Your task to perform on an android device: search for starred emails in the gmail app Image 0: 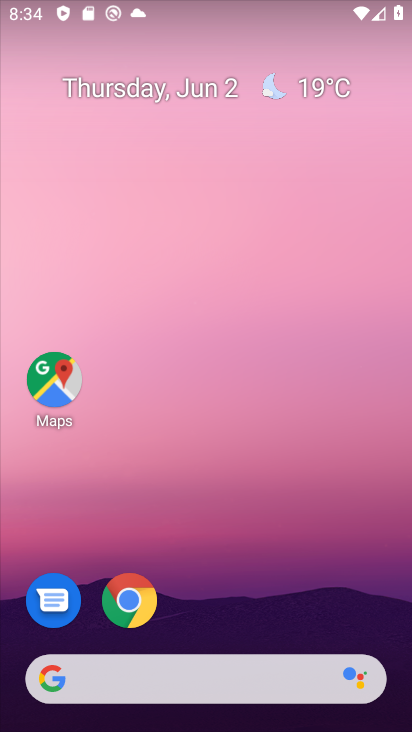
Step 0: drag from (180, 636) to (214, 192)
Your task to perform on an android device: search for starred emails in the gmail app Image 1: 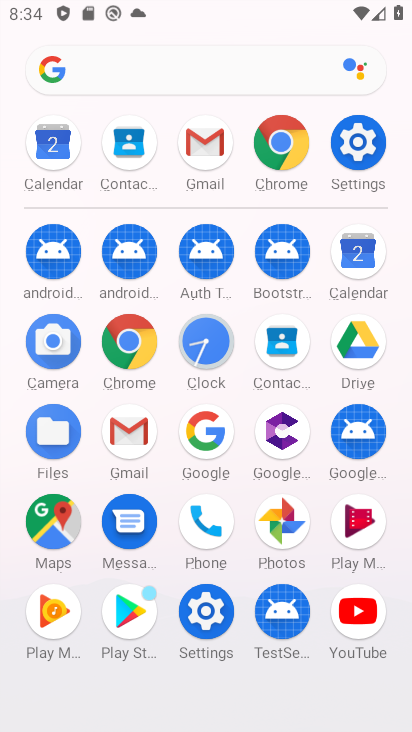
Step 1: click (214, 157)
Your task to perform on an android device: search for starred emails in the gmail app Image 2: 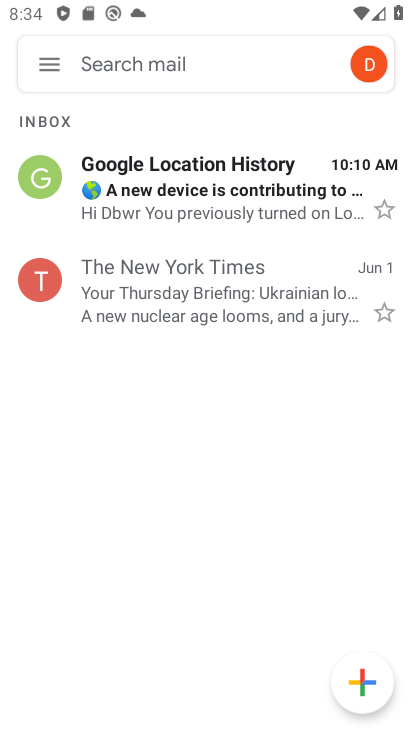
Step 2: click (68, 63)
Your task to perform on an android device: search for starred emails in the gmail app Image 3: 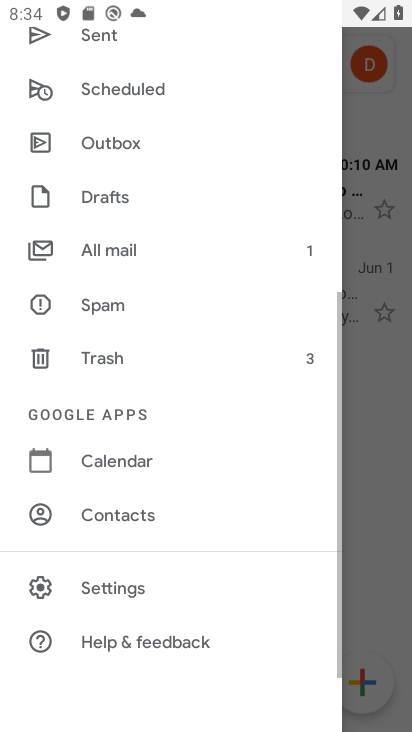
Step 3: drag from (166, 181) to (187, 474)
Your task to perform on an android device: search for starred emails in the gmail app Image 4: 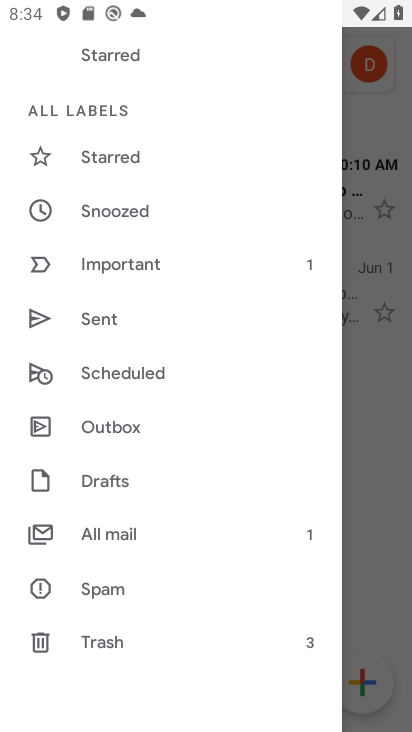
Step 4: click (147, 167)
Your task to perform on an android device: search for starred emails in the gmail app Image 5: 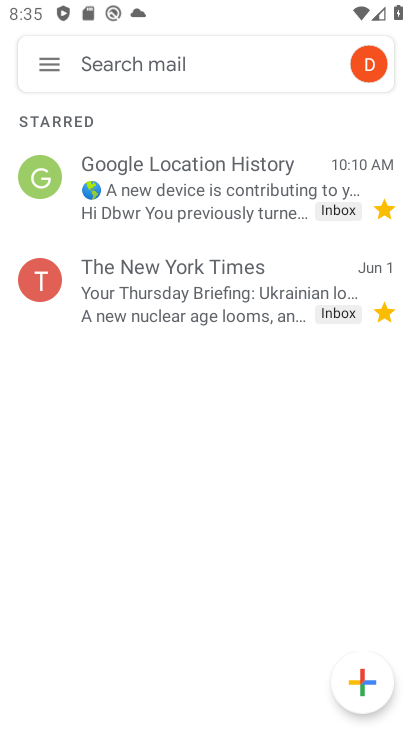
Step 5: task complete